Your task to perform on an android device: Open CNN.com Image 0: 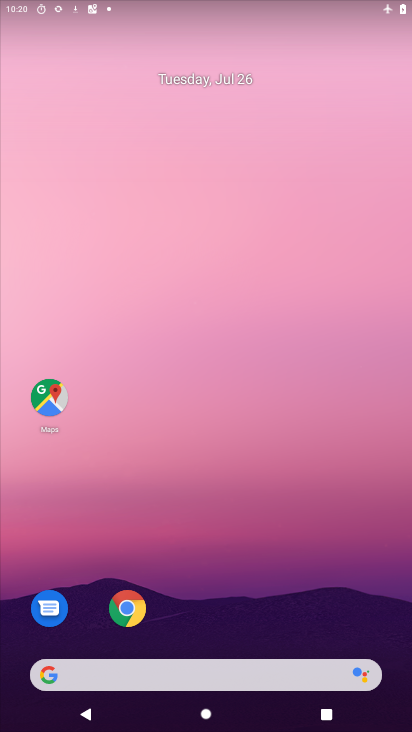
Step 0: click (128, 612)
Your task to perform on an android device: Open CNN.com Image 1: 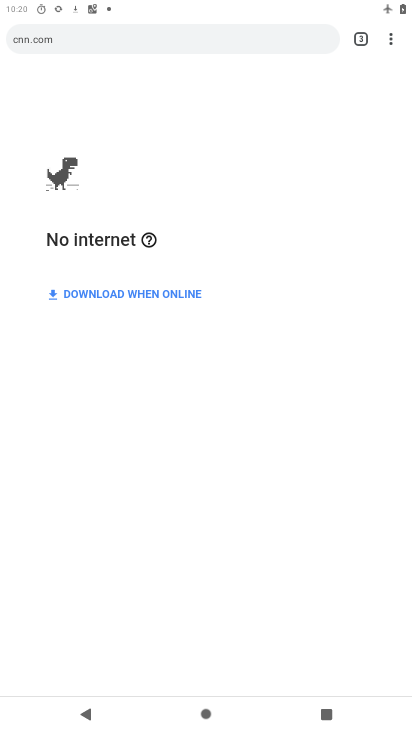
Step 1: click (350, 42)
Your task to perform on an android device: Open CNN.com Image 2: 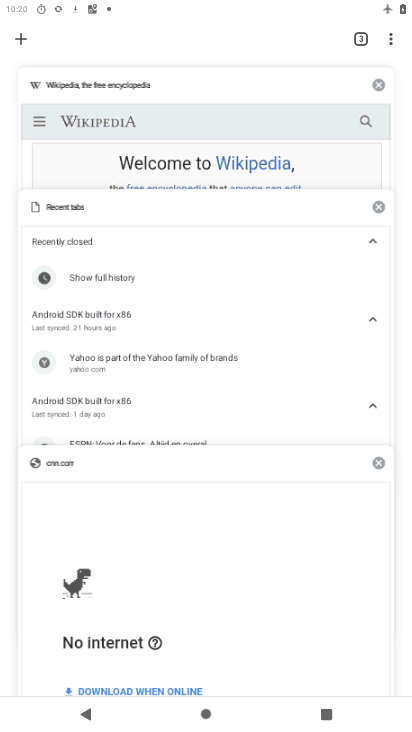
Step 2: click (25, 44)
Your task to perform on an android device: Open CNN.com Image 3: 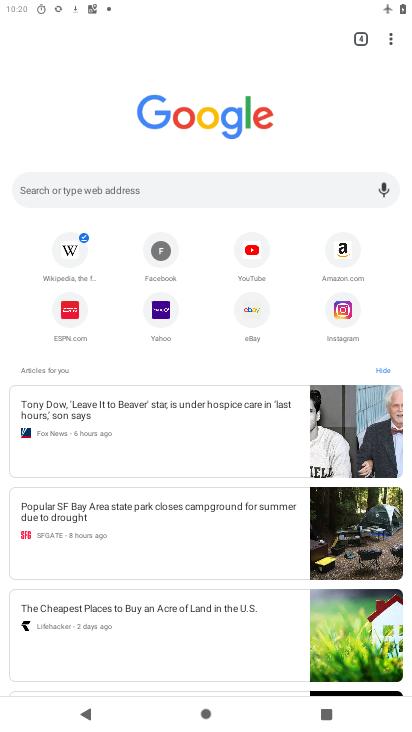
Step 3: click (186, 187)
Your task to perform on an android device: Open CNN.com Image 4: 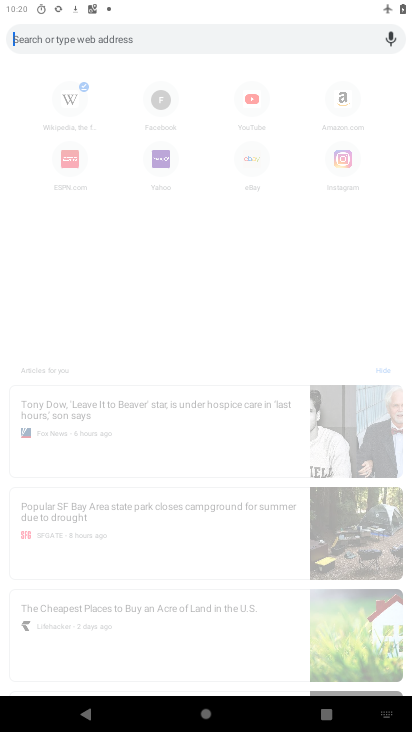
Step 4: type "CNN.com"
Your task to perform on an android device: Open CNN.com Image 5: 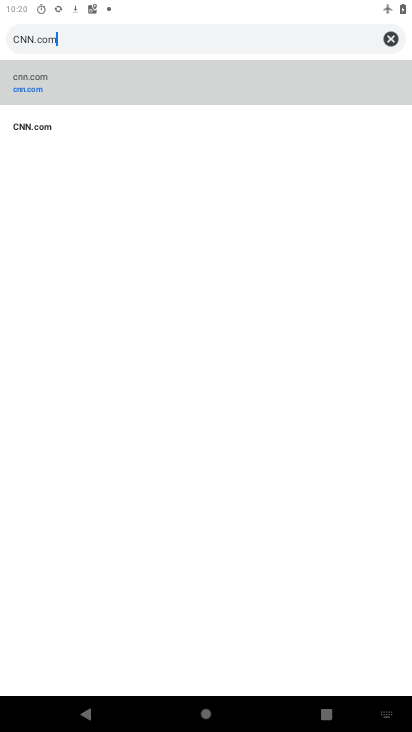
Step 5: type ""
Your task to perform on an android device: Open CNN.com Image 6: 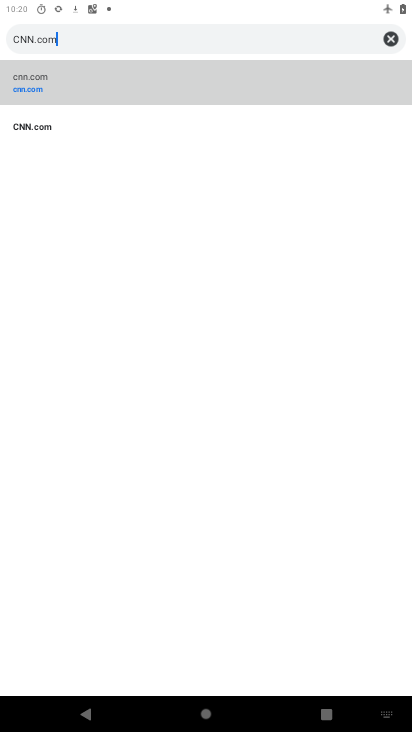
Step 6: click (206, 84)
Your task to perform on an android device: Open CNN.com Image 7: 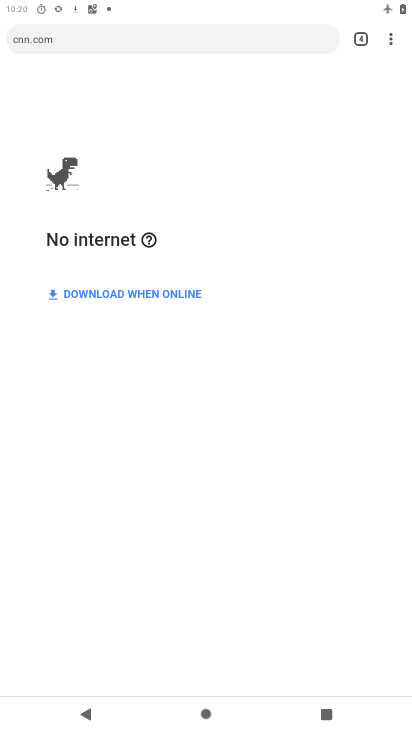
Step 7: task complete